Your task to perform on an android device: Open the map Image 0: 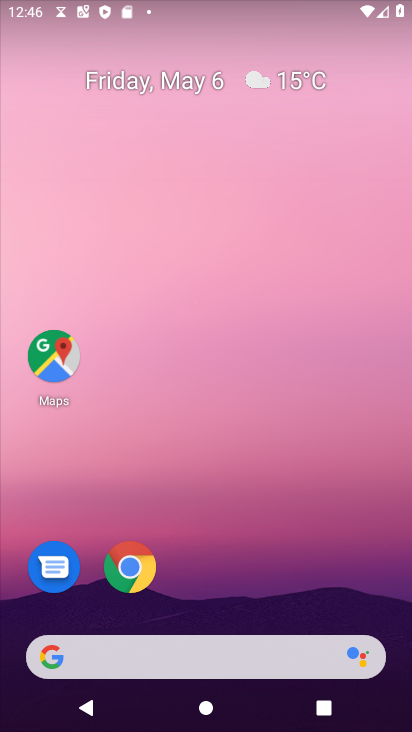
Step 0: drag from (302, 569) to (260, 113)
Your task to perform on an android device: Open the map Image 1: 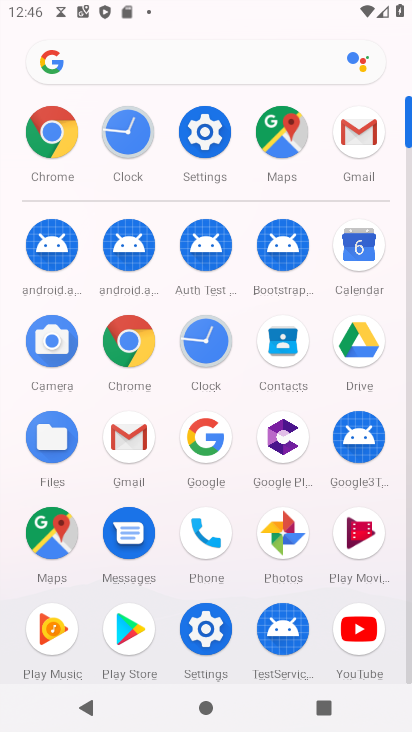
Step 1: click (33, 547)
Your task to perform on an android device: Open the map Image 2: 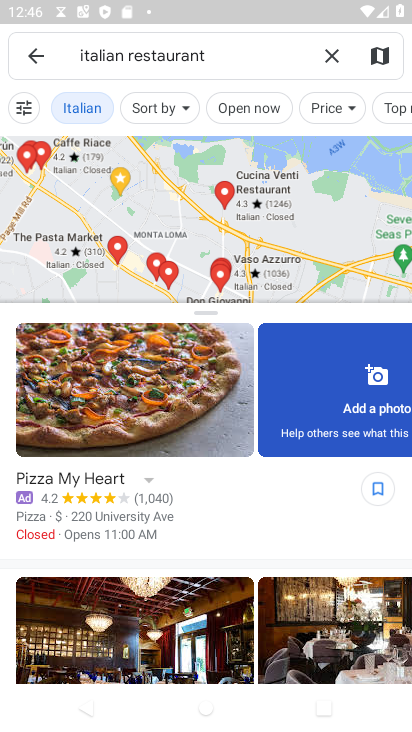
Step 2: task complete